Your task to perform on an android device: Open Youtube and go to the subscriptions tab Image 0: 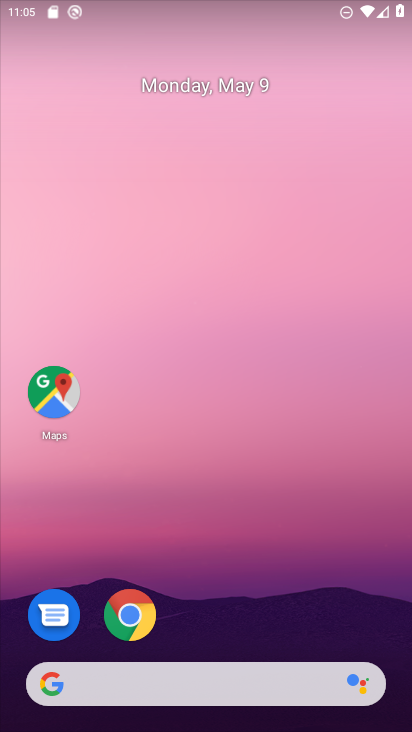
Step 0: drag from (196, 699) to (182, 153)
Your task to perform on an android device: Open Youtube and go to the subscriptions tab Image 1: 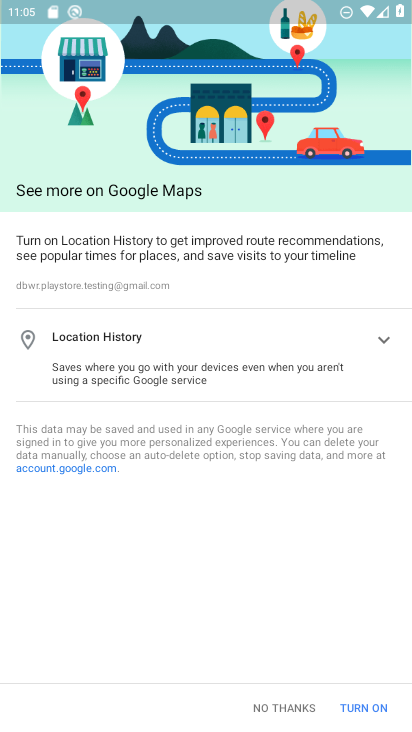
Step 1: press home button
Your task to perform on an android device: Open Youtube and go to the subscriptions tab Image 2: 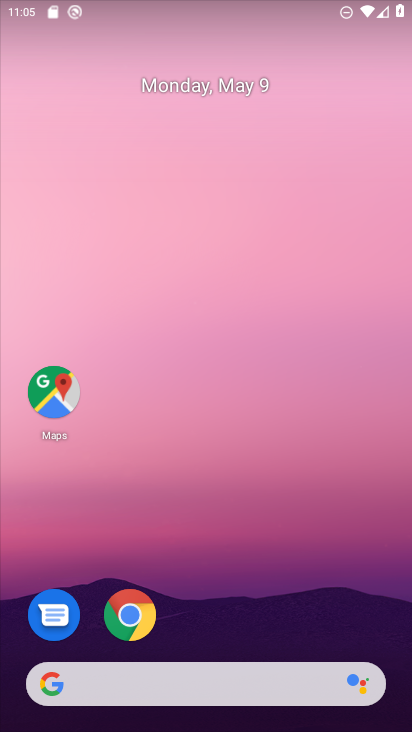
Step 2: drag from (252, 726) to (250, 217)
Your task to perform on an android device: Open Youtube and go to the subscriptions tab Image 3: 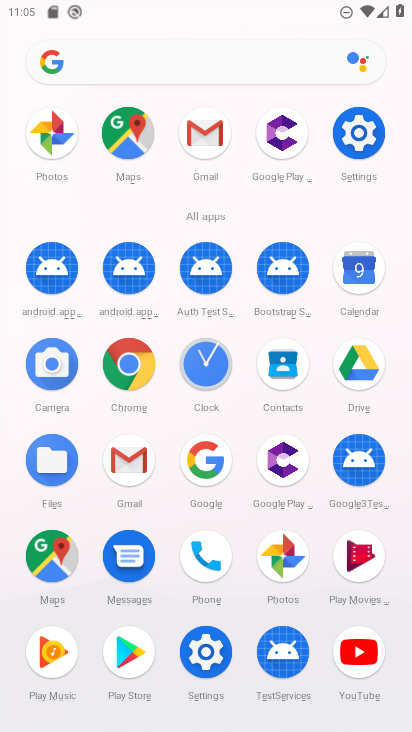
Step 3: click (360, 658)
Your task to perform on an android device: Open Youtube and go to the subscriptions tab Image 4: 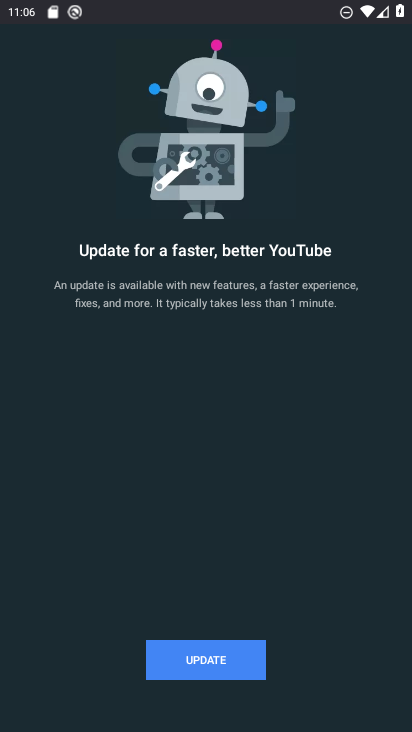
Step 4: task complete